Your task to perform on an android device: install app "Viber Messenger" Image 0: 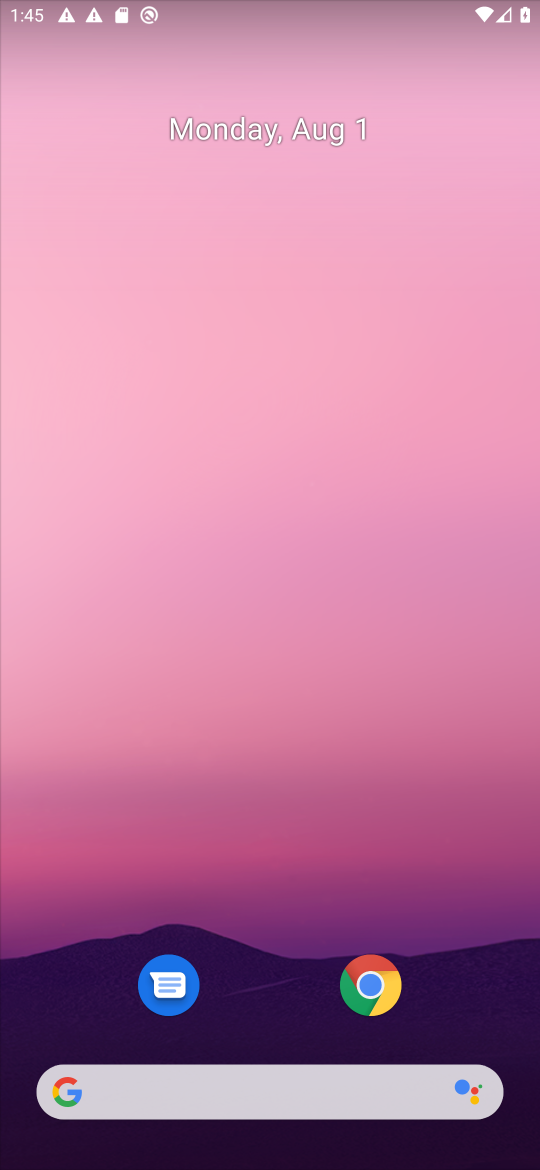
Step 0: drag from (292, 793) to (299, 231)
Your task to perform on an android device: install app "Viber Messenger" Image 1: 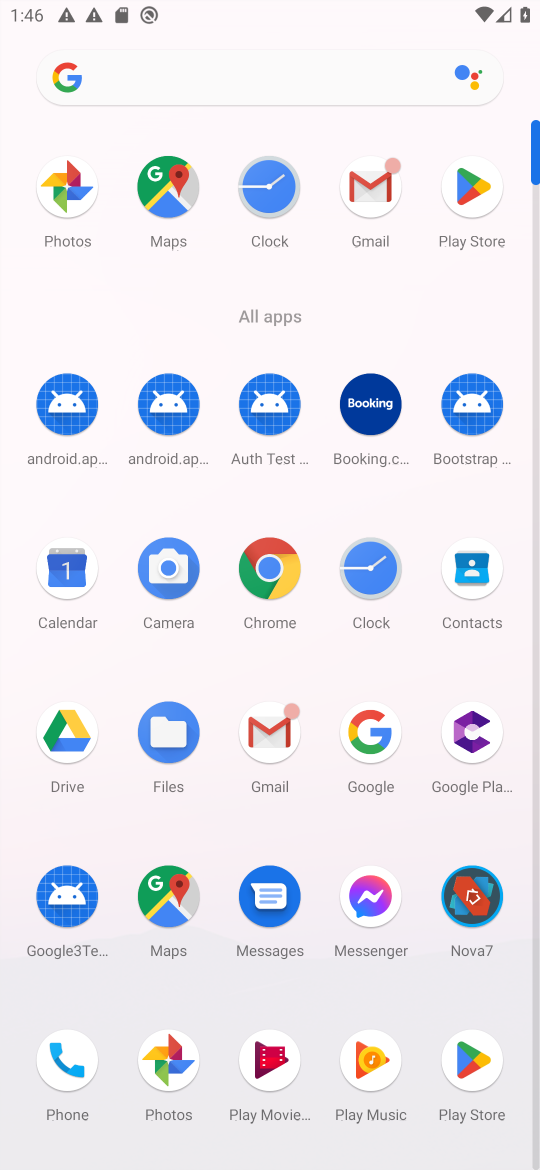
Step 1: click (476, 185)
Your task to perform on an android device: install app "Viber Messenger" Image 2: 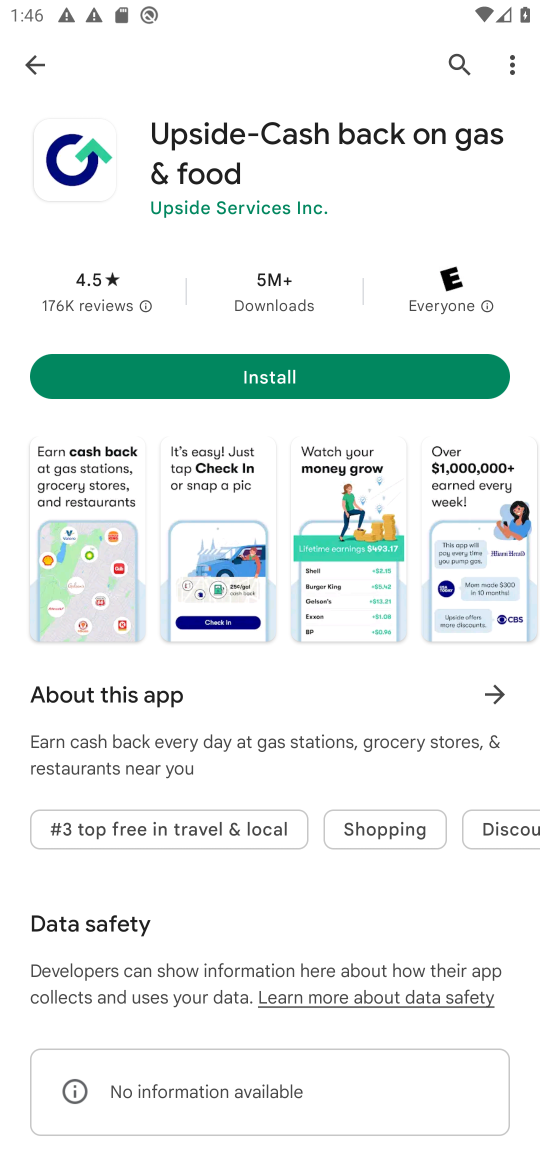
Step 2: click (453, 59)
Your task to perform on an android device: install app "Viber Messenger" Image 3: 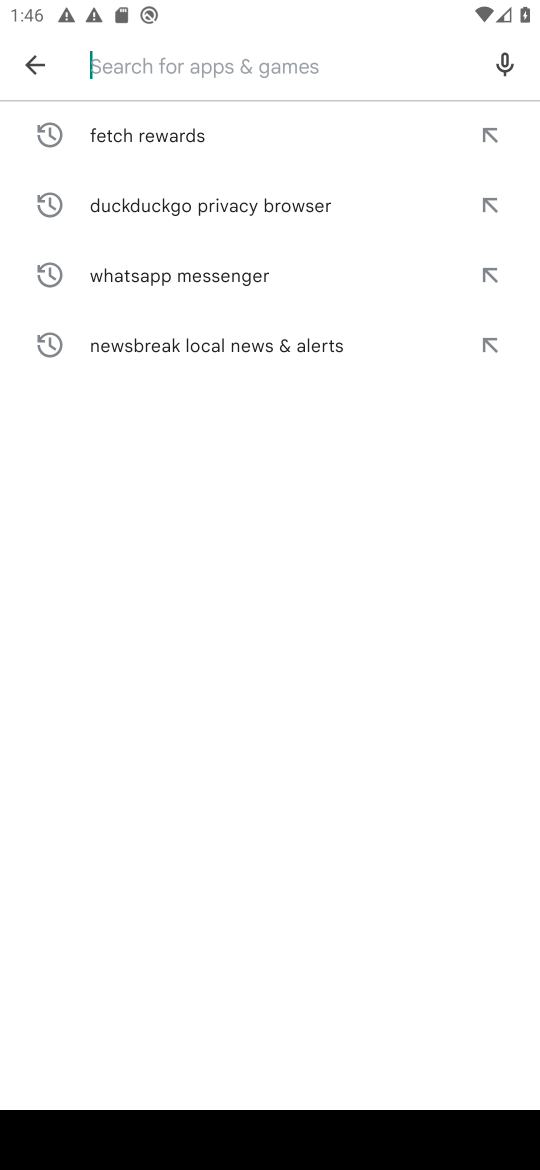
Step 3: type "Viber Messenger"
Your task to perform on an android device: install app "Viber Messenger" Image 4: 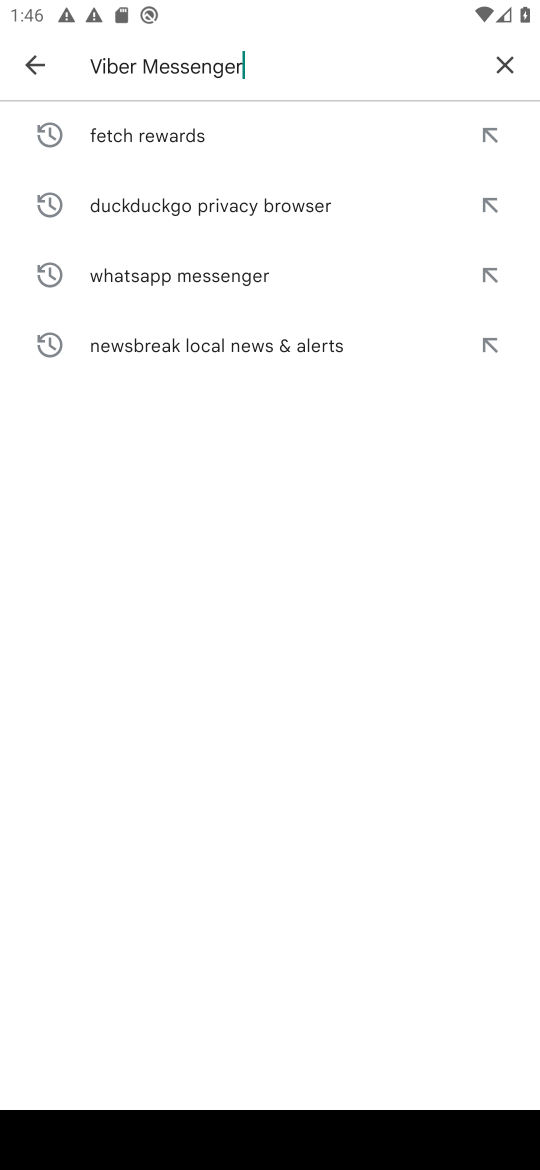
Step 4: type ""
Your task to perform on an android device: install app "Viber Messenger" Image 5: 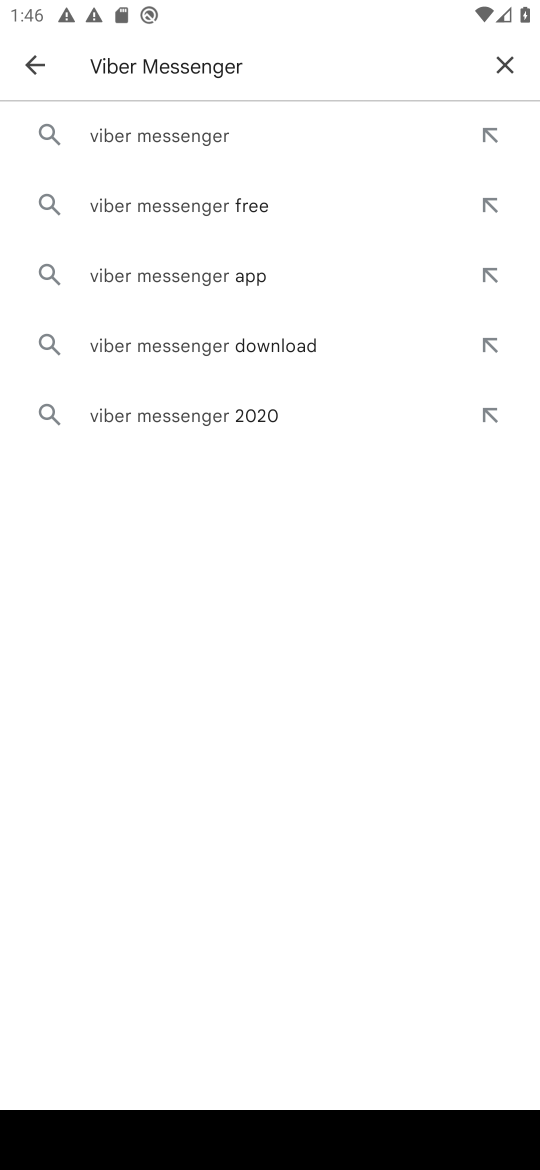
Step 5: click (168, 131)
Your task to perform on an android device: install app "Viber Messenger" Image 6: 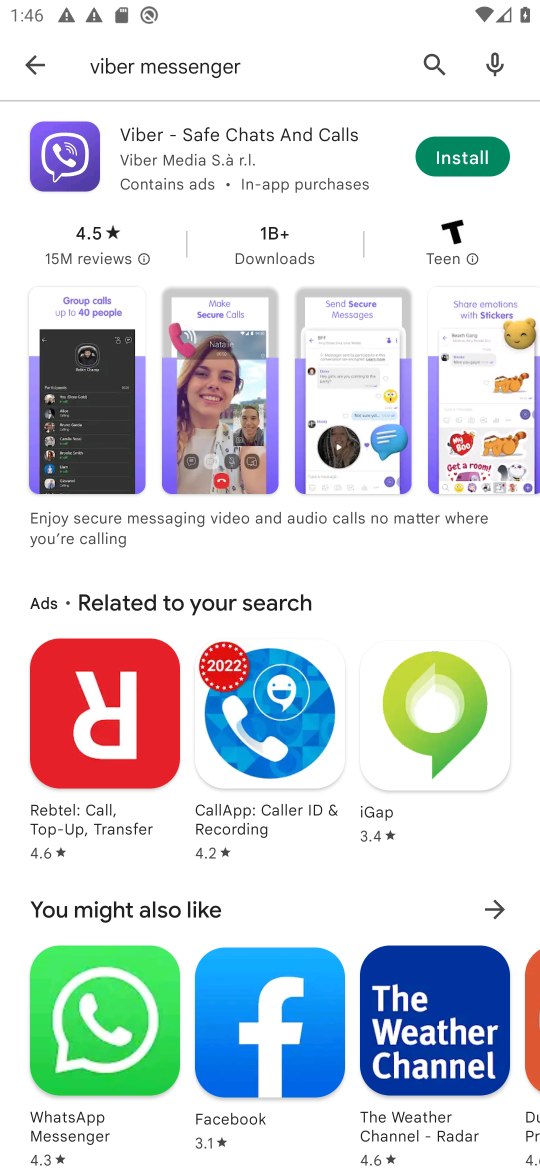
Step 6: click (465, 152)
Your task to perform on an android device: install app "Viber Messenger" Image 7: 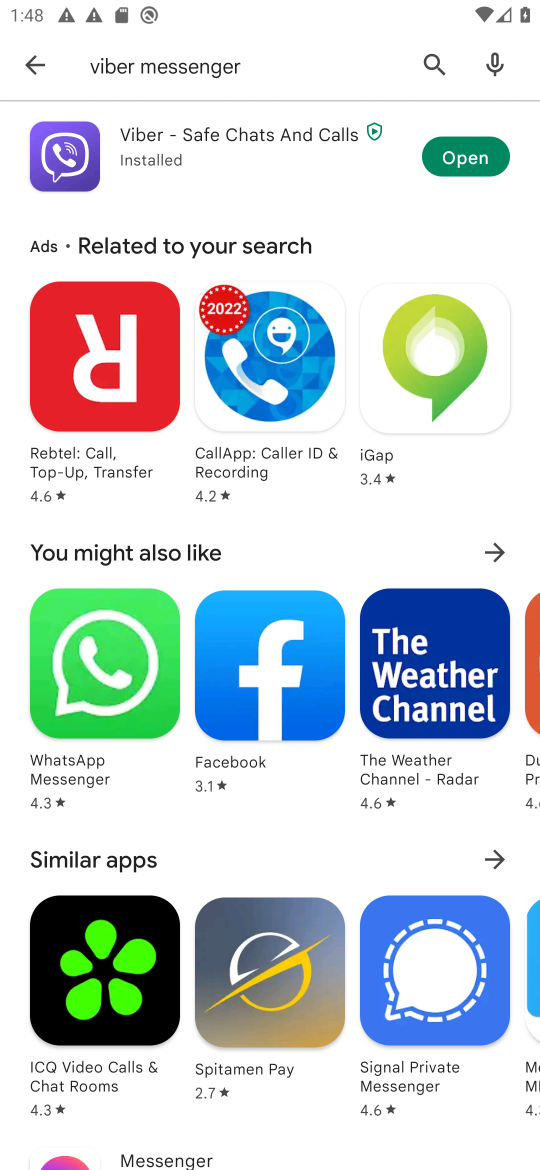
Step 7: task complete